Your task to perform on an android device: Open Google Maps Image 0: 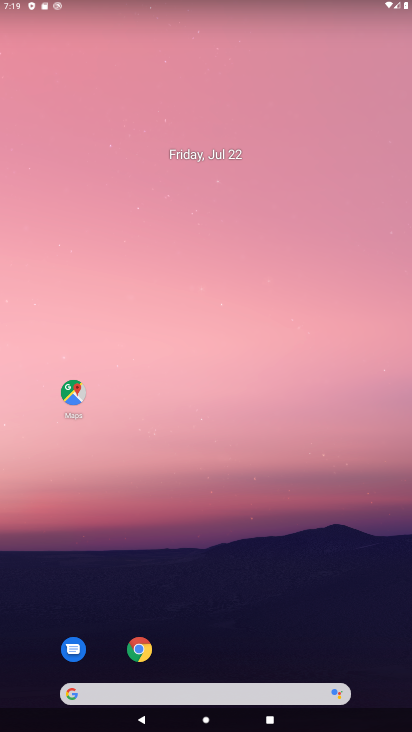
Step 0: click (68, 395)
Your task to perform on an android device: Open Google Maps Image 1: 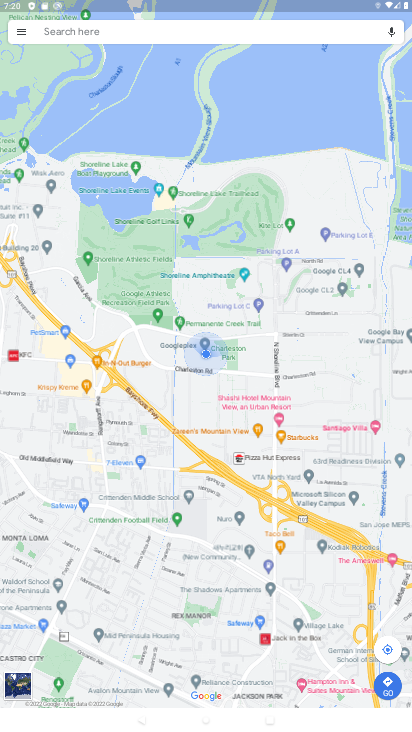
Step 1: task complete